Your task to perform on an android device: read, delete, or share a saved page in the chrome app Image 0: 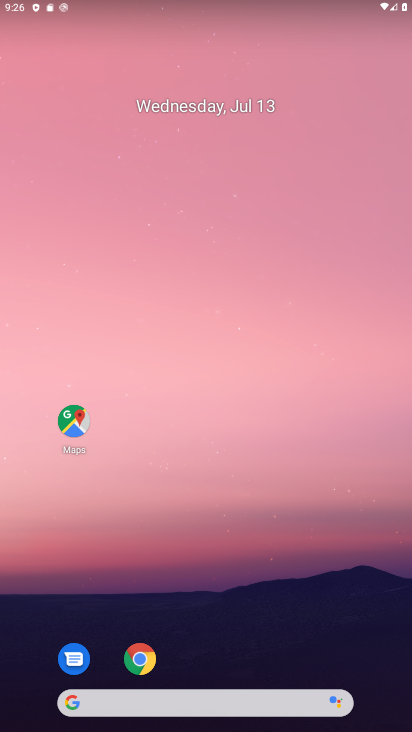
Step 0: click (141, 660)
Your task to perform on an android device: read, delete, or share a saved page in the chrome app Image 1: 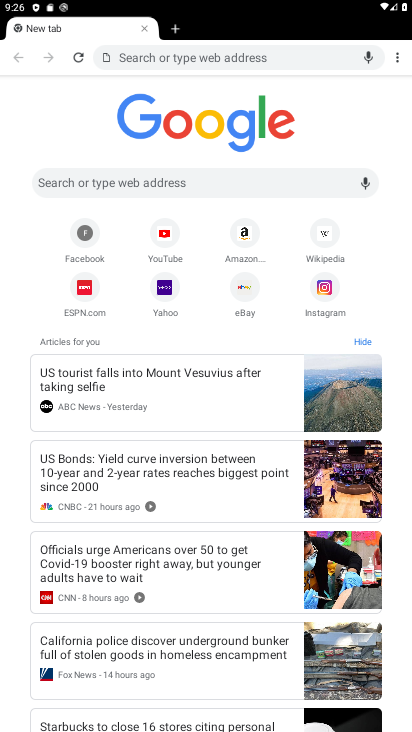
Step 1: click (399, 59)
Your task to perform on an android device: read, delete, or share a saved page in the chrome app Image 2: 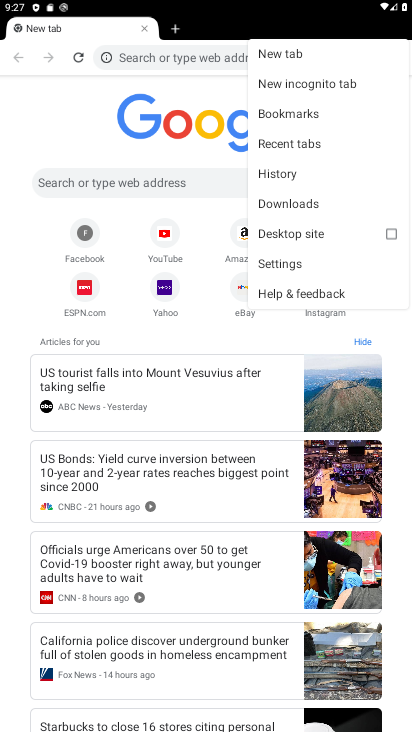
Step 2: click (282, 202)
Your task to perform on an android device: read, delete, or share a saved page in the chrome app Image 3: 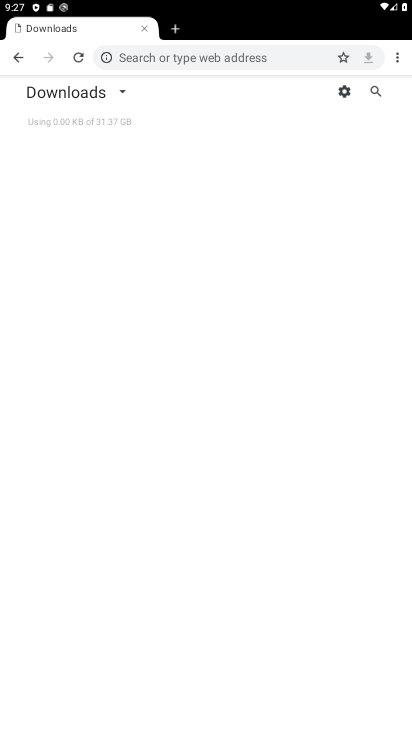
Step 3: task complete